Your task to perform on an android device: Search for asus rog on walmart.com, select the first entry, and add it to the cart. Image 0: 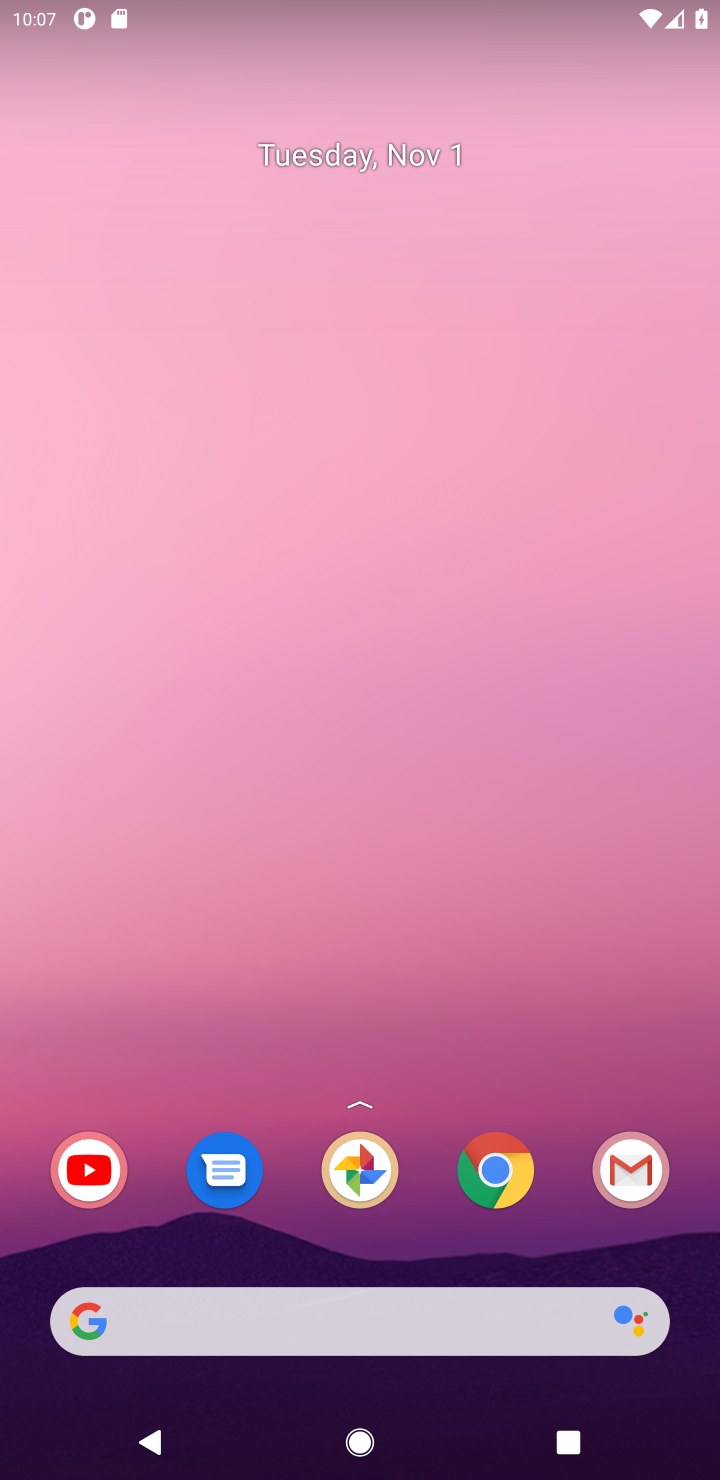
Step 0: click (482, 1190)
Your task to perform on an android device: Search for asus rog on walmart.com, select the first entry, and add it to the cart. Image 1: 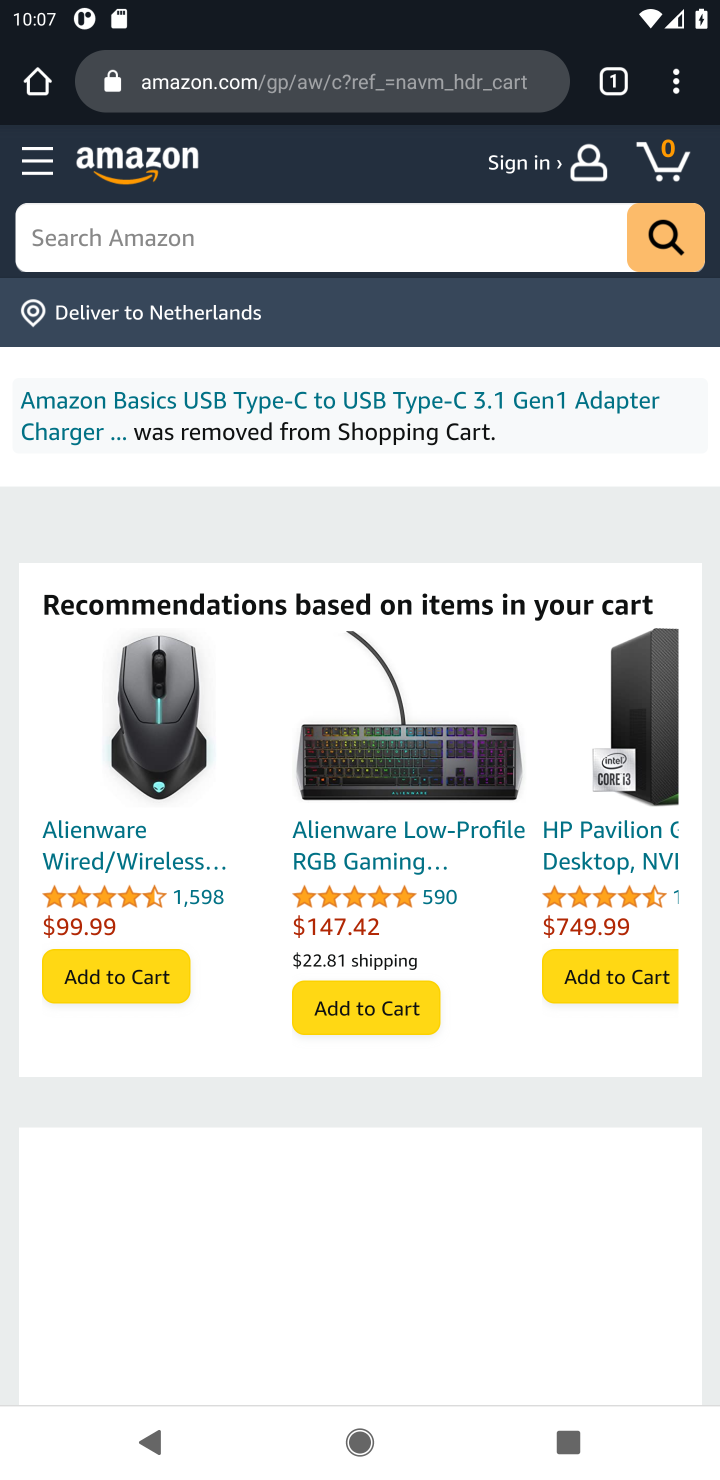
Step 1: click (393, 83)
Your task to perform on an android device: Search for asus rog on walmart.com, select the first entry, and add it to the cart. Image 2: 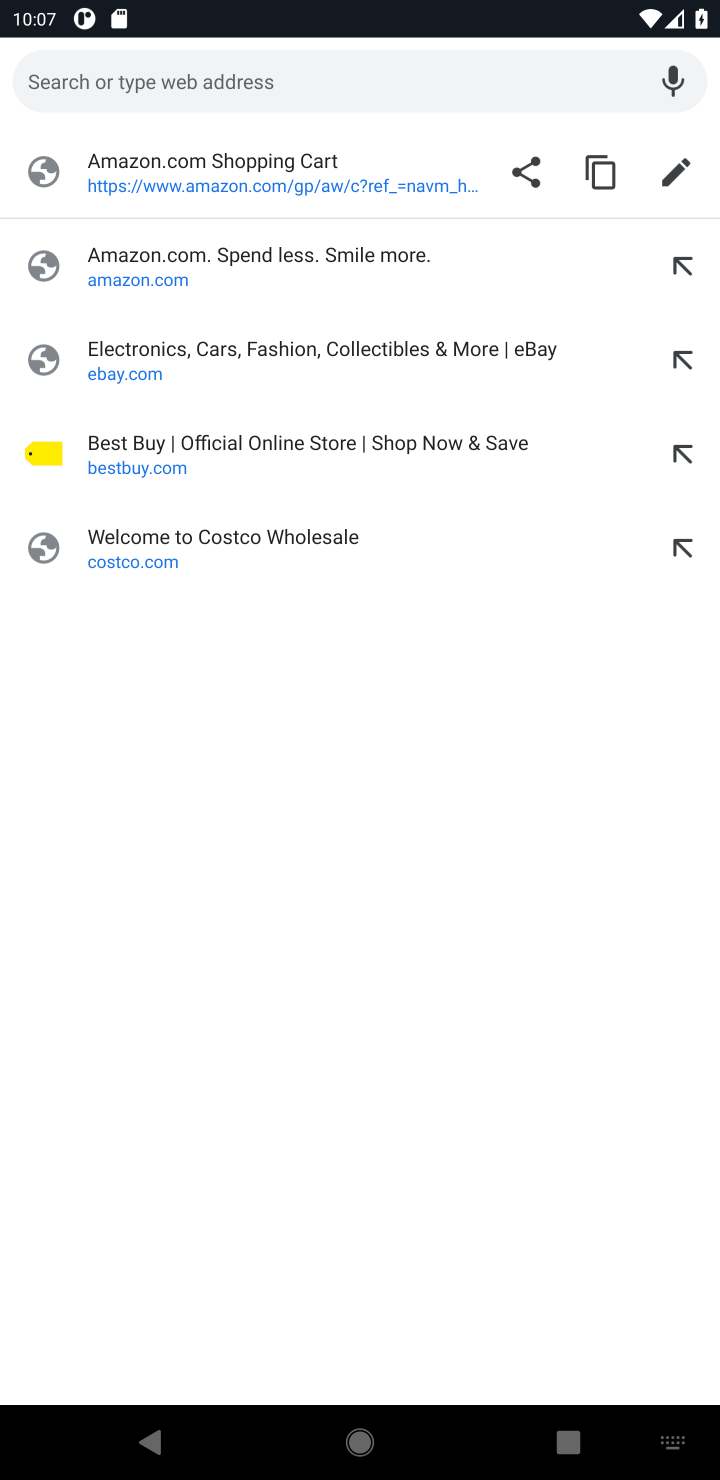
Step 2: type "walmart.com"
Your task to perform on an android device: Search for asus rog on walmart.com, select the first entry, and add it to the cart. Image 3: 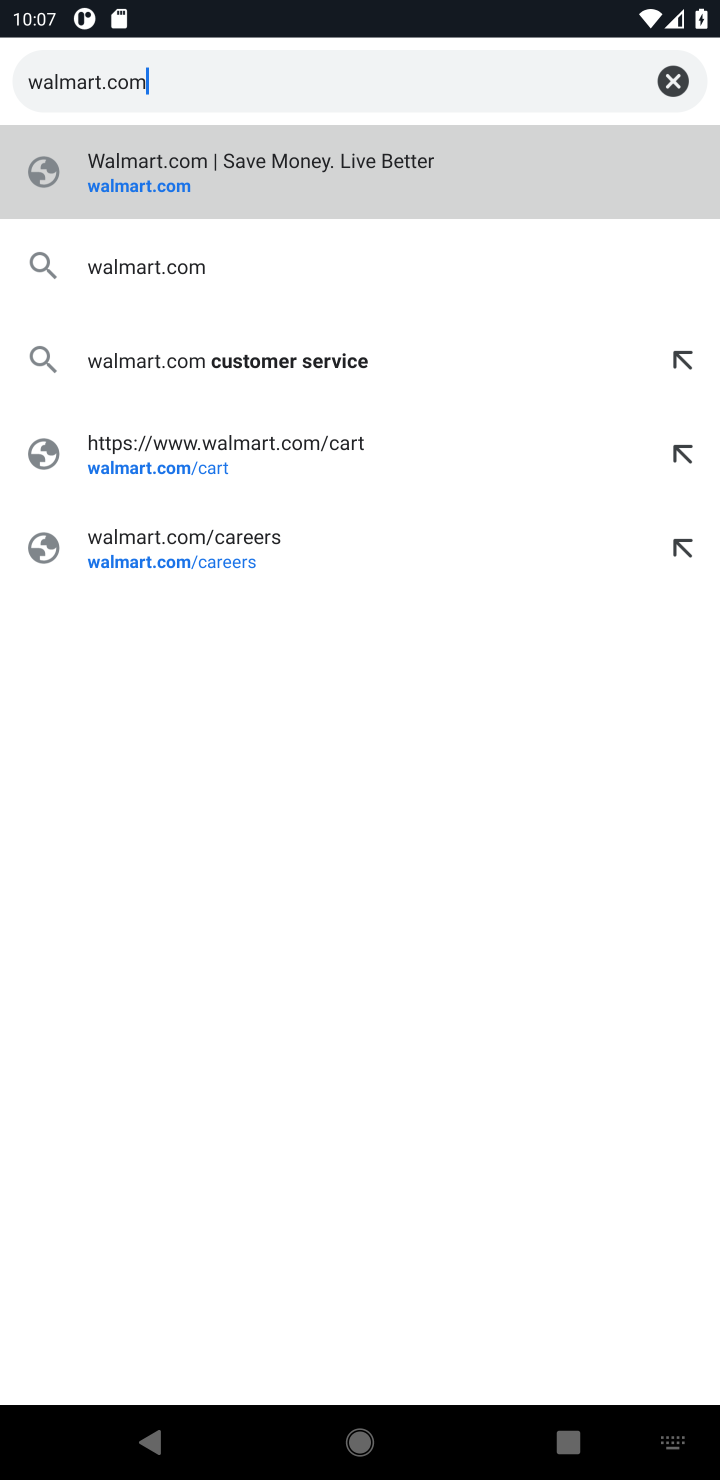
Step 3: press enter
Your task to perform on an android device: Search for asus rog on walmart.com, select the first entry, and add it to the cart. Image 4: 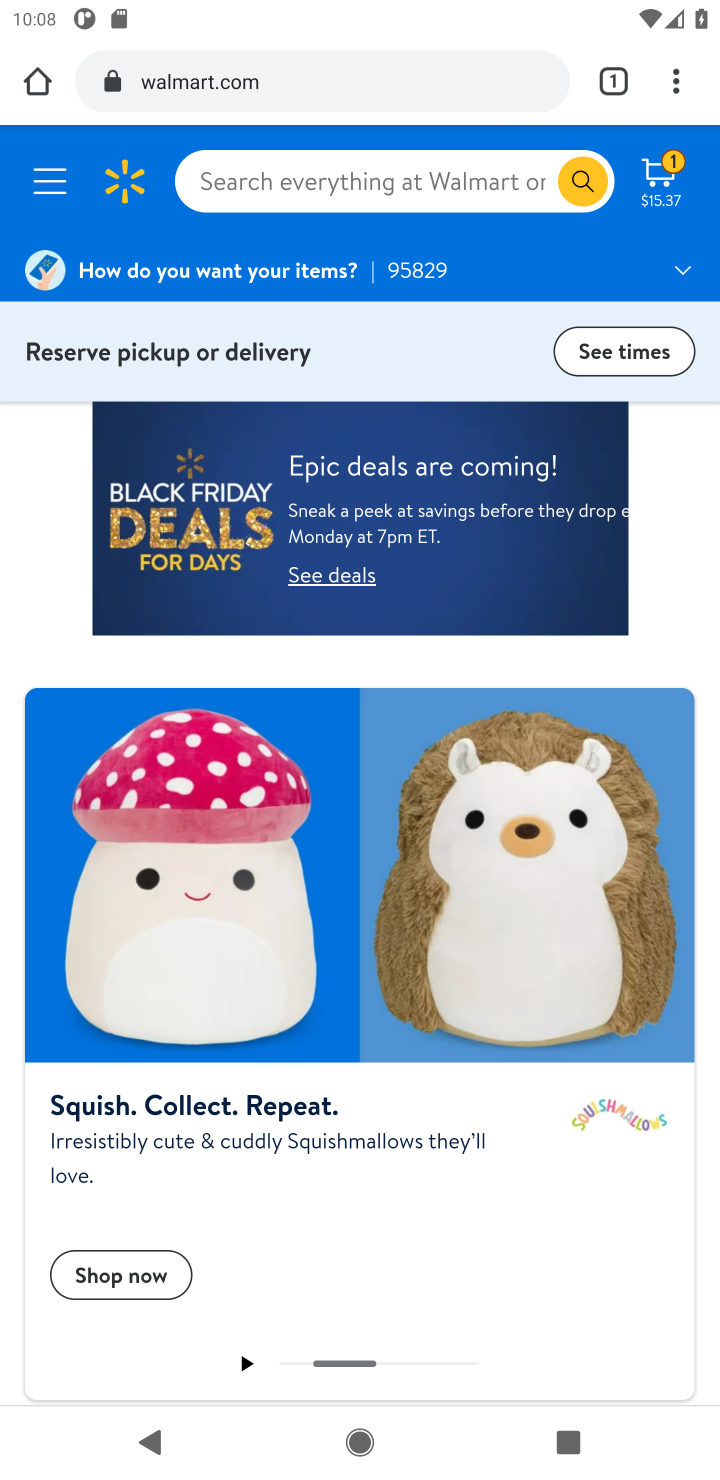
Step 4: click (396, 180)
Your task to perform on an android device: Search for asus rog on walmart.com, select the first entry, and add it to the cart. Image 5: 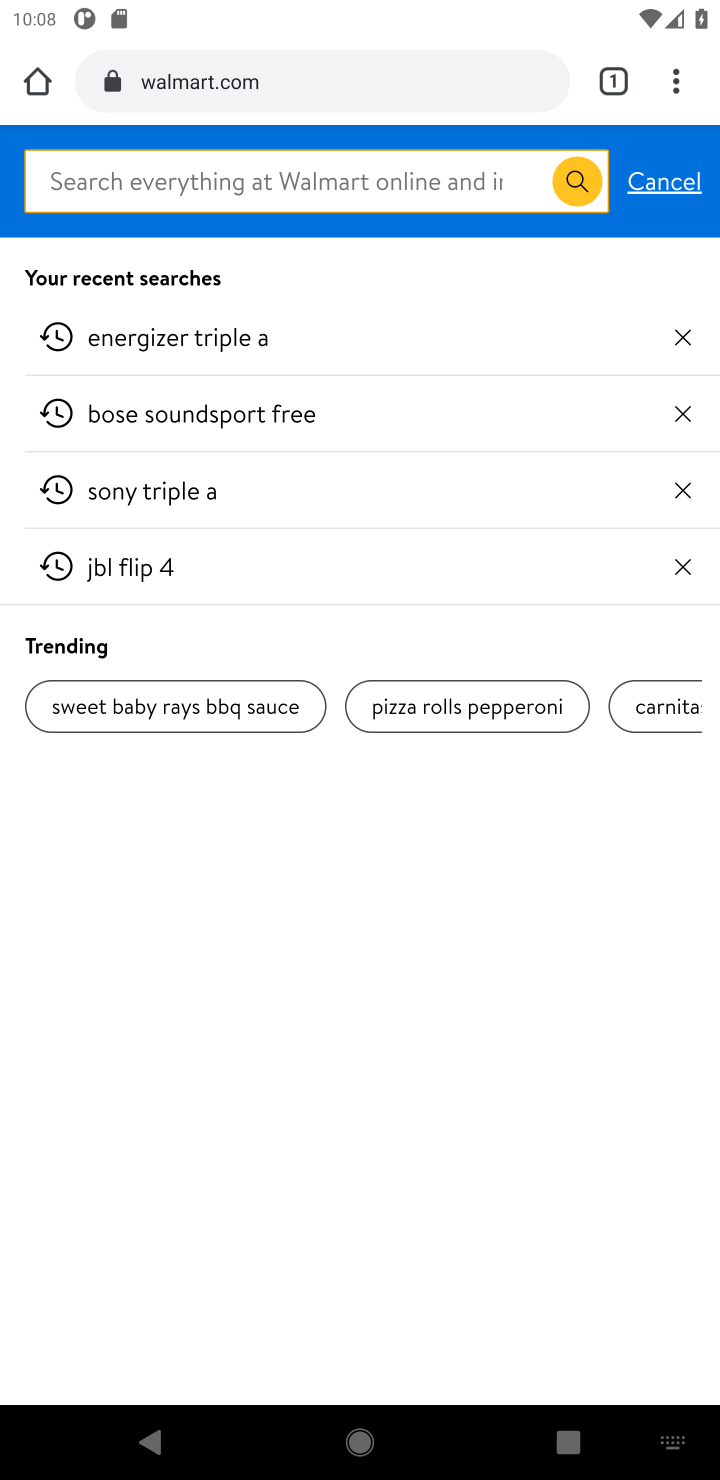
Step 5: type "asus rog"
Your task to perform on an android device: Search for asus rog on walmart.com, select the first entry, and add it to the cart. Image 6: 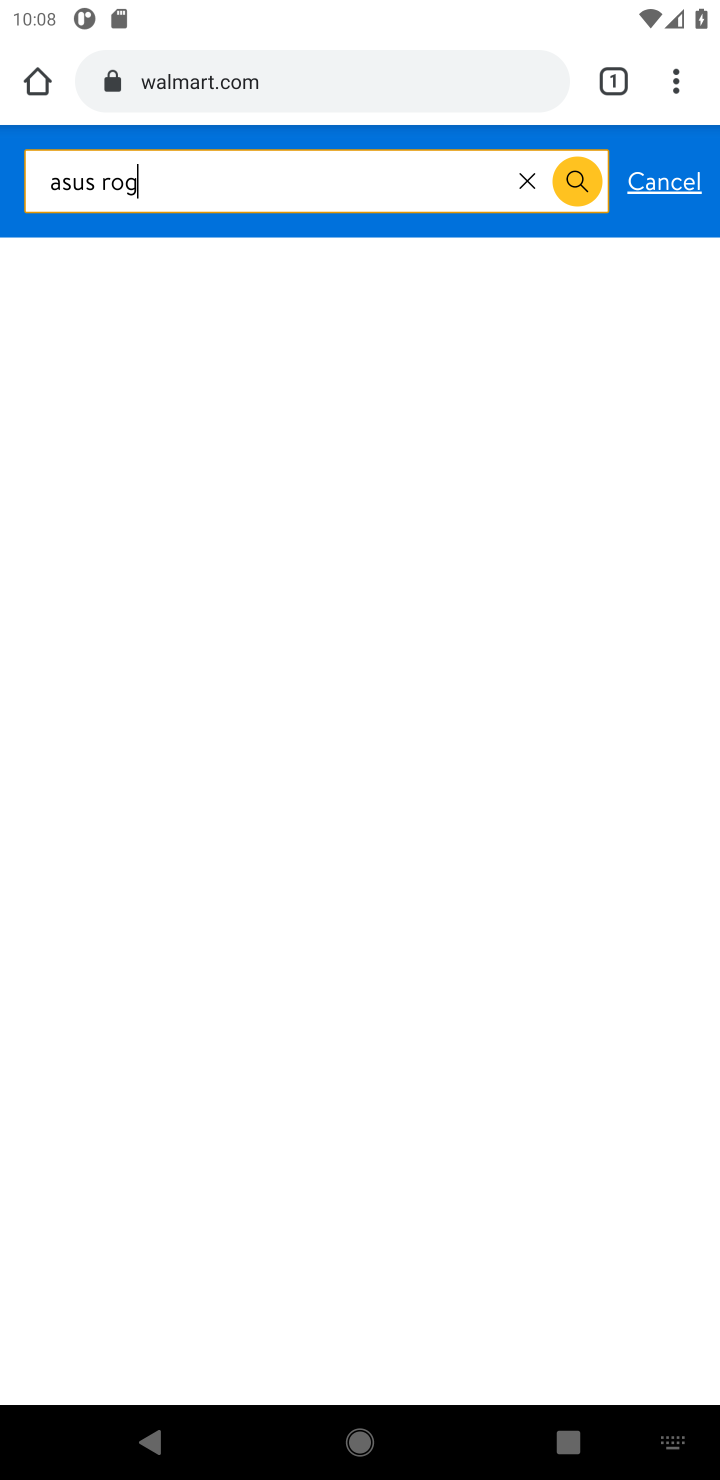
Step 6: type ""
Your task to perform on an android device: Search for asus rog on walmart.com, select the first entry, and add it to the cart. Image 7: 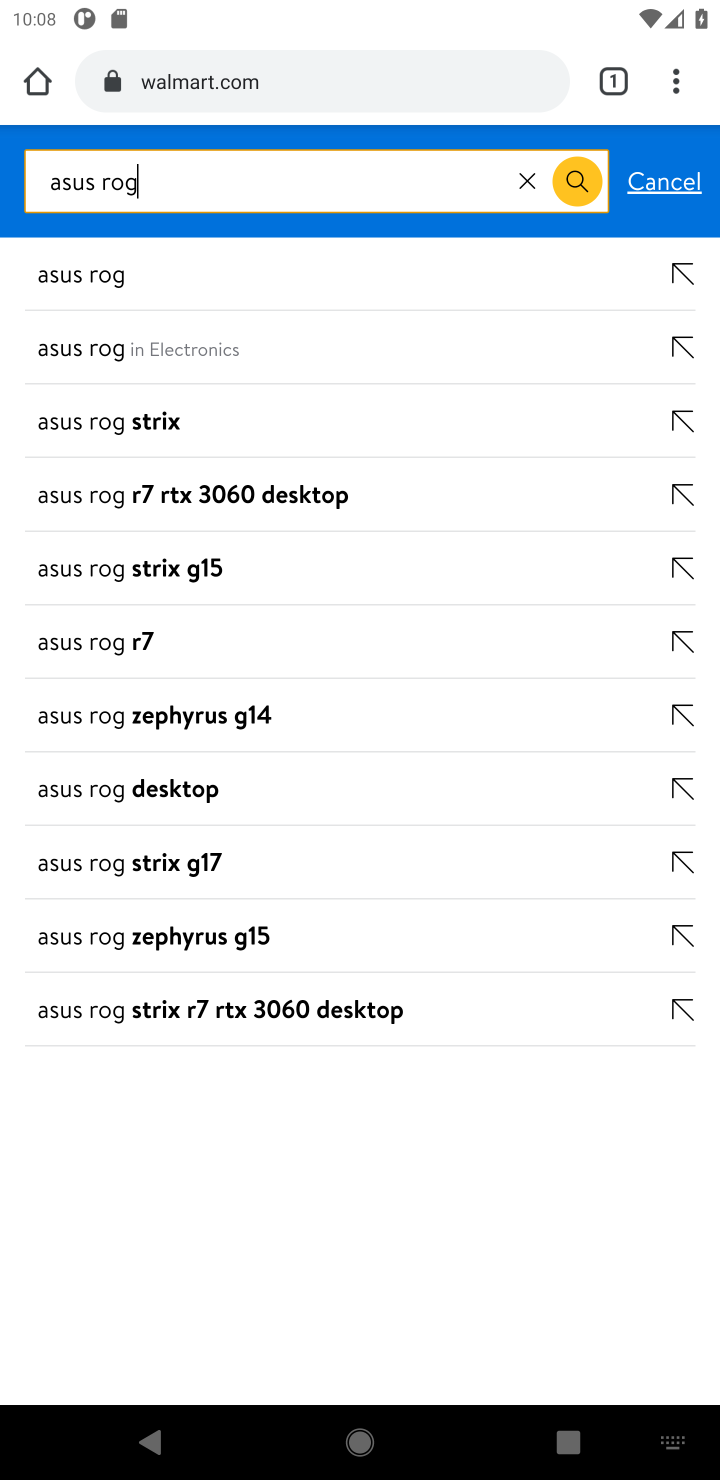
Step 7: press enter
Your task to perform on an android device: Search for asus rog on walmart.com, select the first entry, and add it to the cart. Image 8: 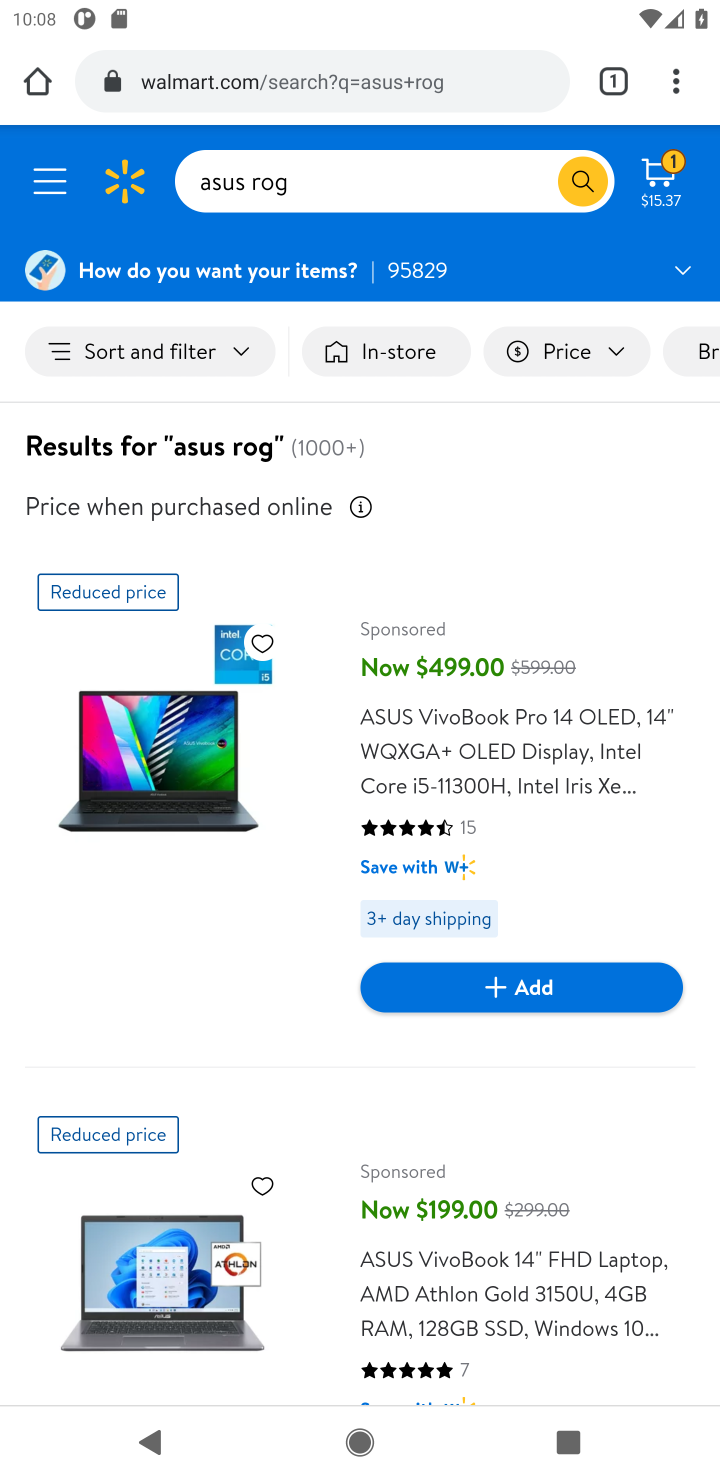
Step 8: drag from (371, 1213) to (348, 315)
Your task to perform on an android device: Search for asus rog on walmart.com, select the first entry, and add it to the cart. Image 9: 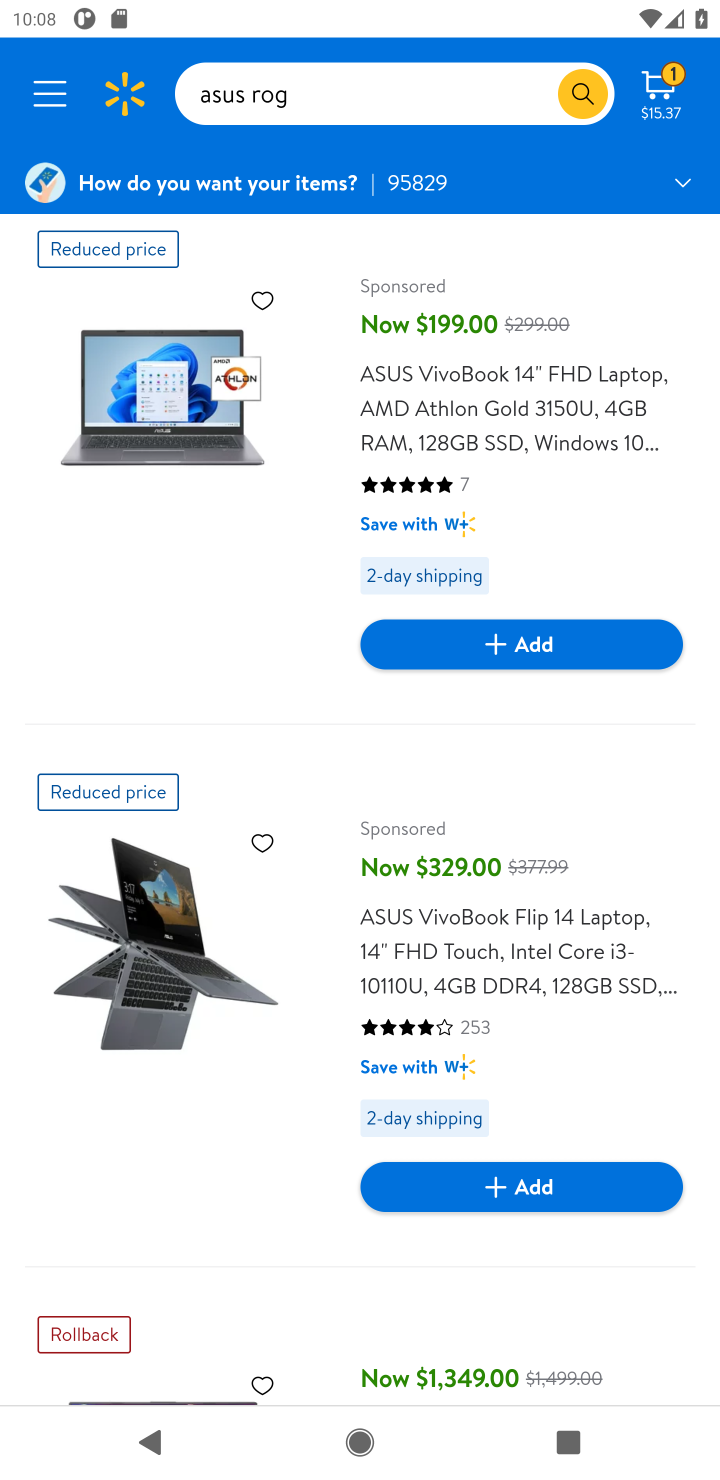
Step 9: drag from (539, 1114) to (499, 440)
Your task to perform on an android device: Search for asus rog on walmart.com, select the first entry, and add it to the cart. Image 10: 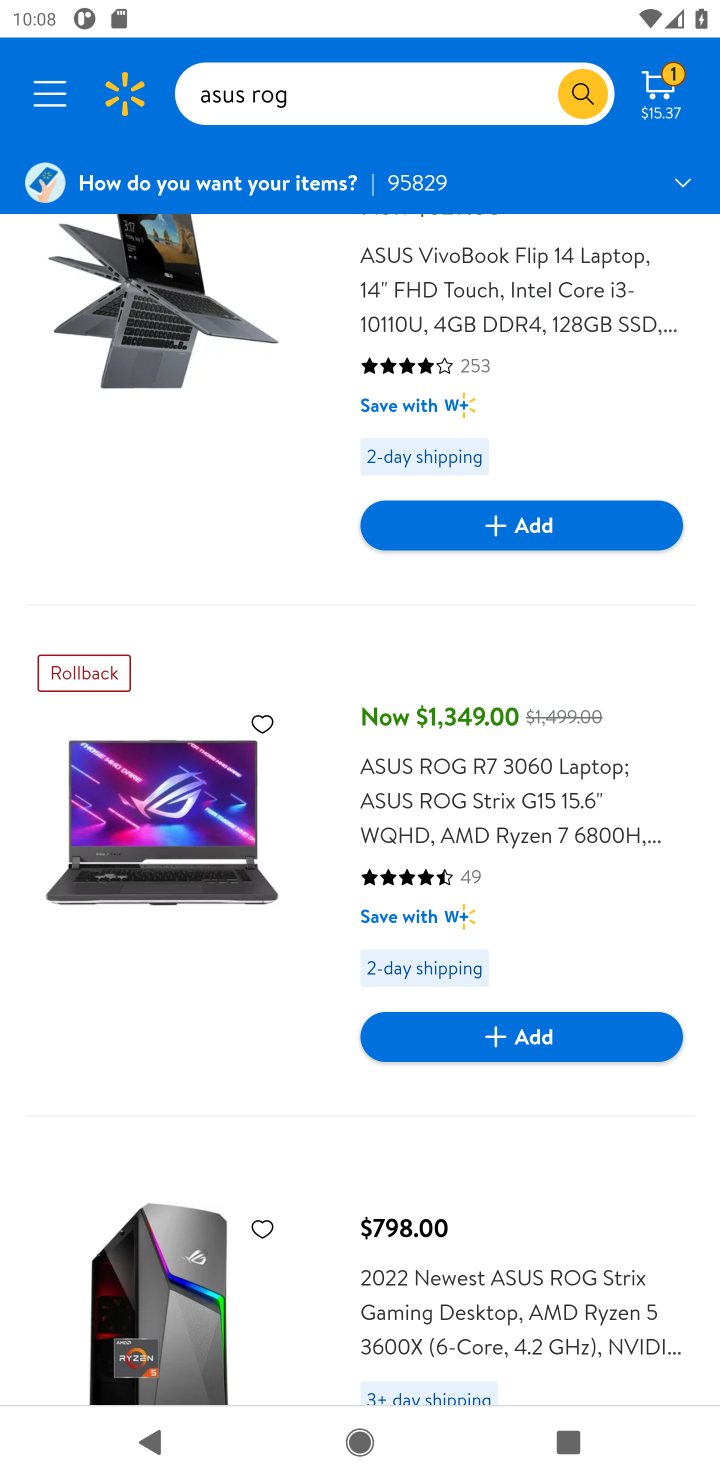
Step 10: click (447, 811)
Your task to perform on an android device: Search for asus rog on walmart.com, select the first entry, and add it to the cart. Image 11: 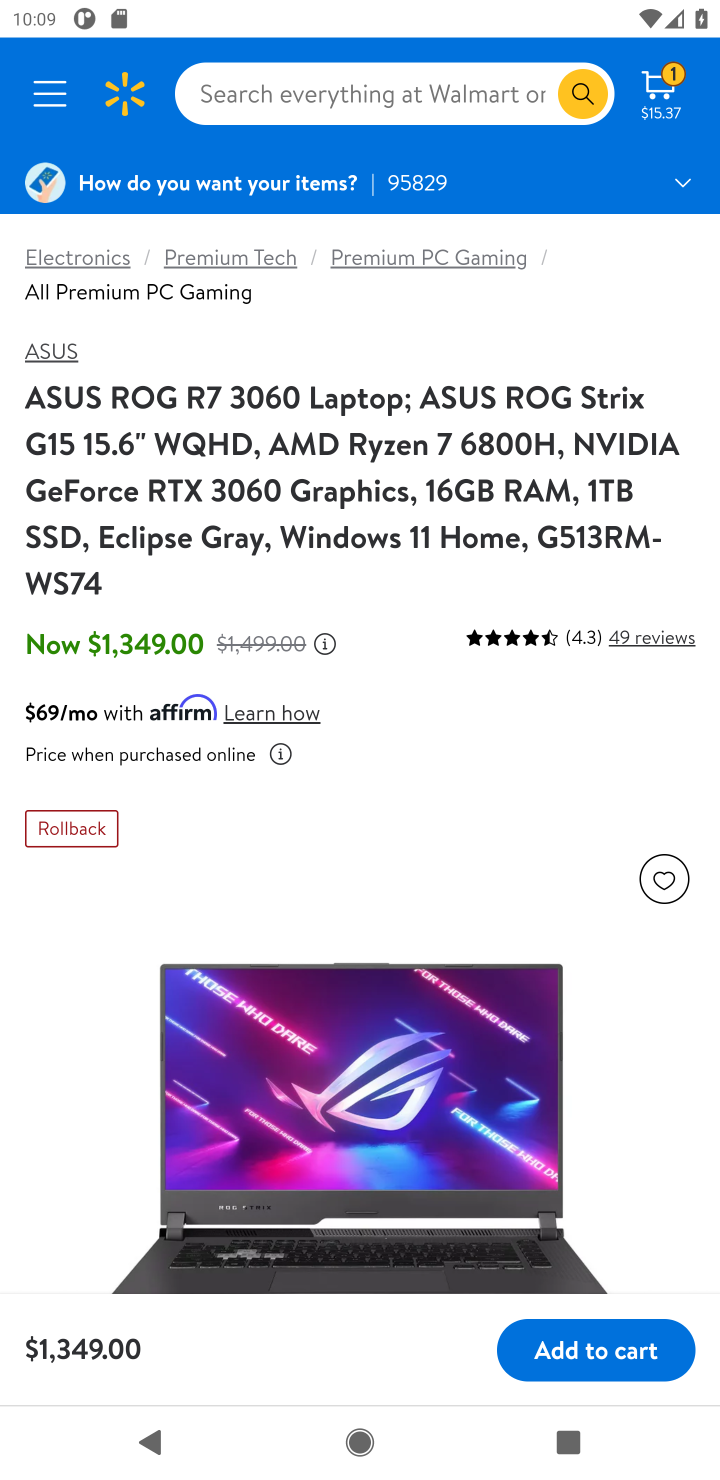
Step 11: click (588, 1347)
Your task to perform on an android device: Search for asus rog on walmart.com, select the first entry, and add it to the cart. Image 12: 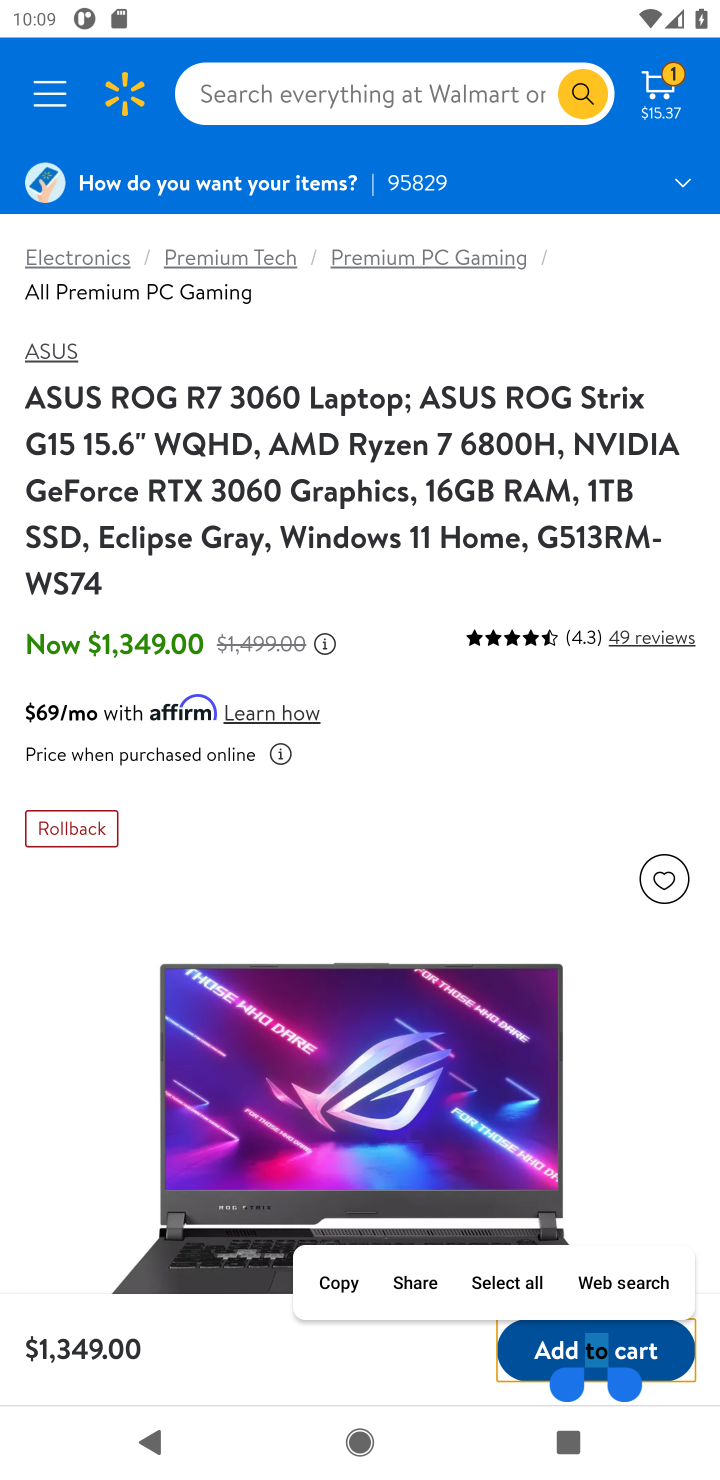
Step 12: click (637, 1364)
Your task to perform on an android device: Search for asus rog on walmart.com, select the first entry, and add it to the cart. Image 13: 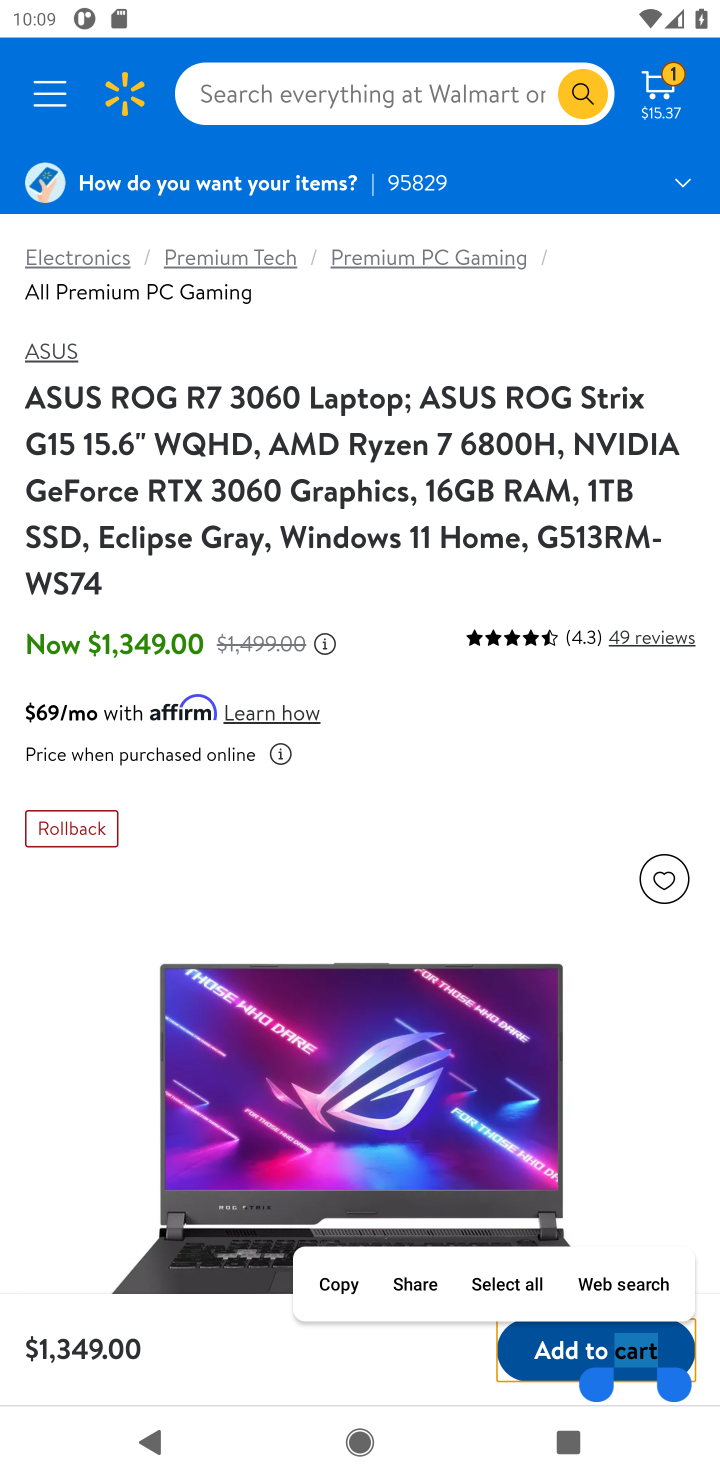
Step 13: click (525, 1364)
Your task to perform on an android device: Search for asus rog on walmart.com, select the first entry, and add it to the cart. Image 14: 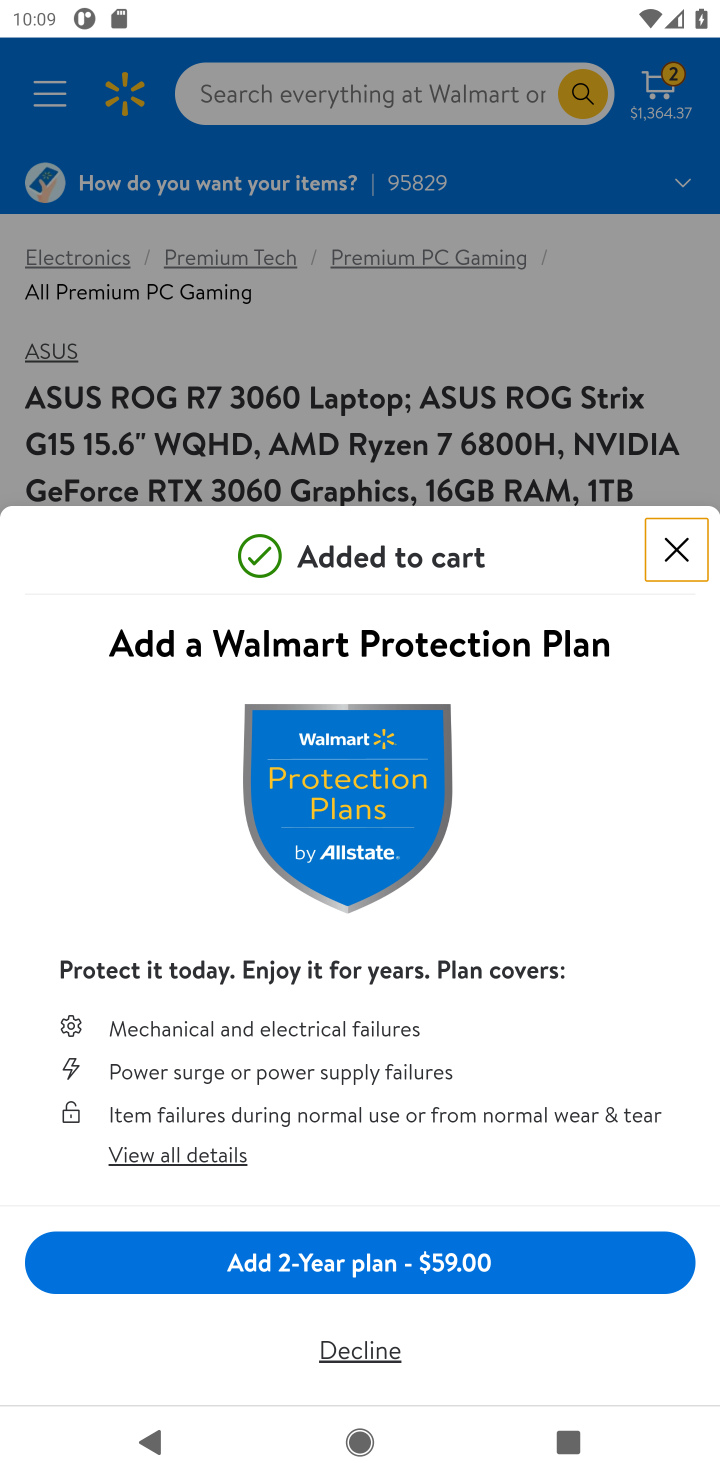
Step 14: click (666, 548)
Your task to perform on an android device: Search for asus rog on walmart.com, select the first entry, and add it to the cart. Image 15: 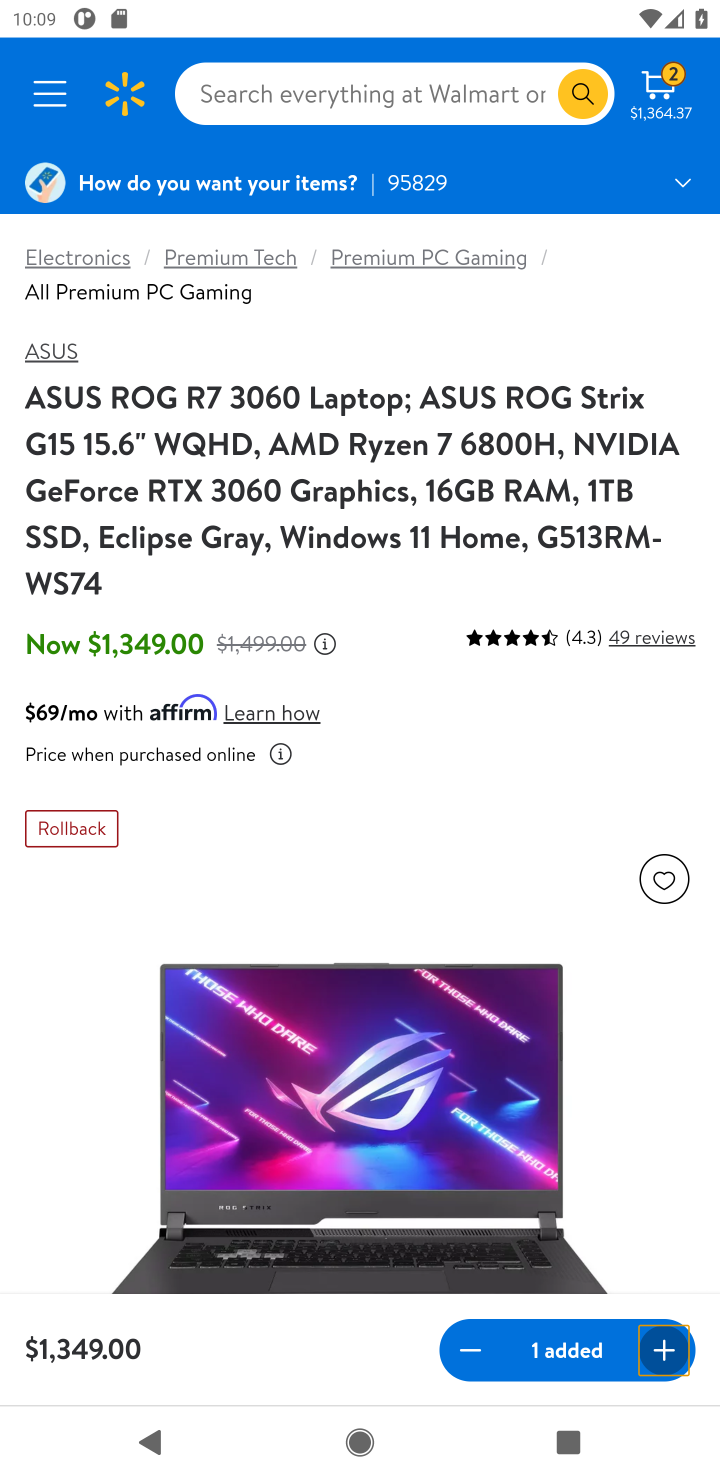
Step 15: task complete